Your task to perform on an android device: Open Yahoo.com Image 0: 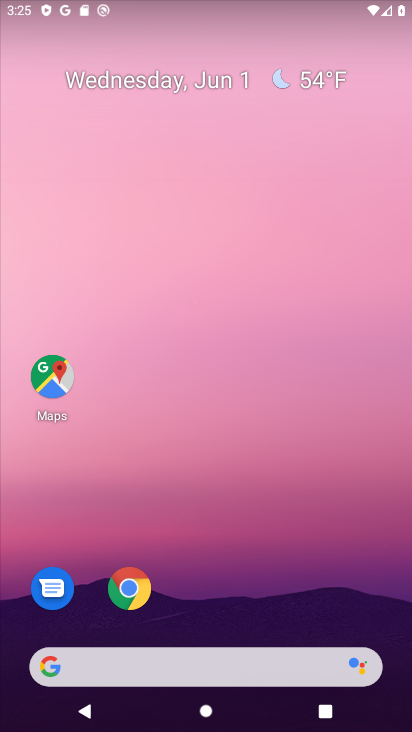
Step 0: click (131, 582)
Your task to perform on an android device: Open Yahoo.com Image 1: 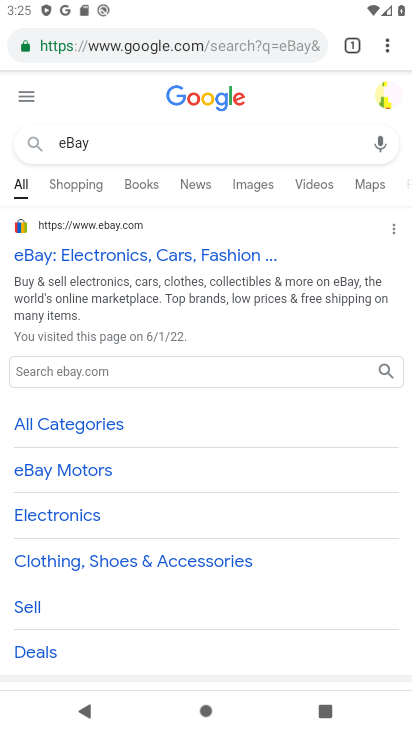
Step 1: click (196, 44)
Your task to perform on an android device: Open Yahoo.com Image 2: 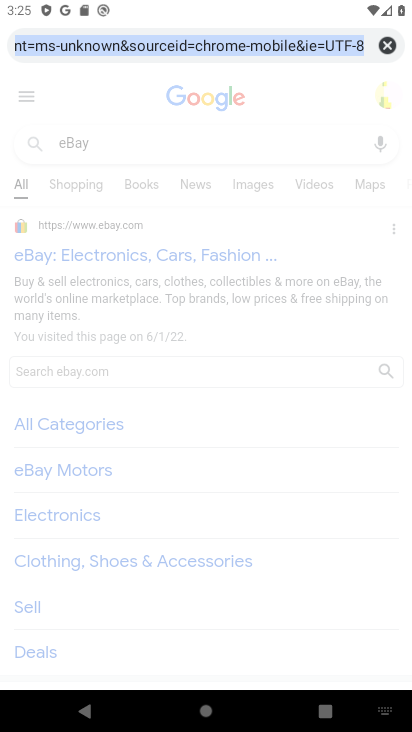
Step 2: type "Yahoo.com"
Your task to perform on an android device: Open Yahoo.com Image 3: 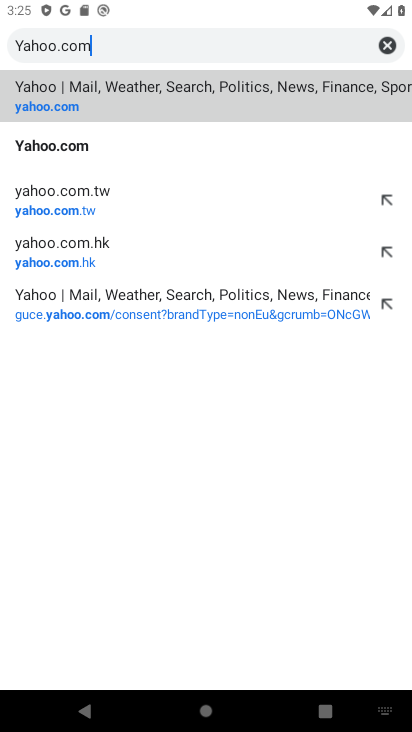
Step 3: click (94, 105)
Your task to perform on an android device: Open Yahoo.com Image 4: 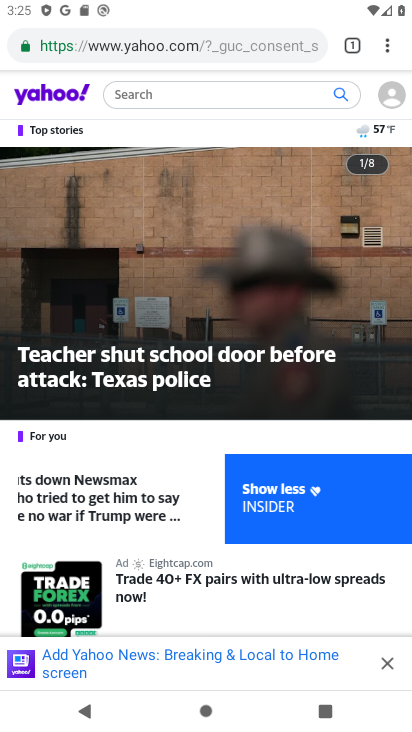
Step 4: task complete